Your task to perform on an android device: Open calendar and show me the second week of next month Image 0: 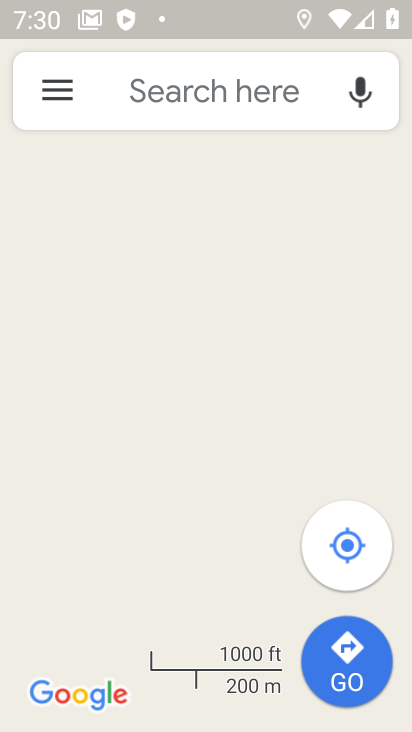
Step 0: press back button
Your task to perform on an android device: Open calendar and show me the second week of next month Image 1: 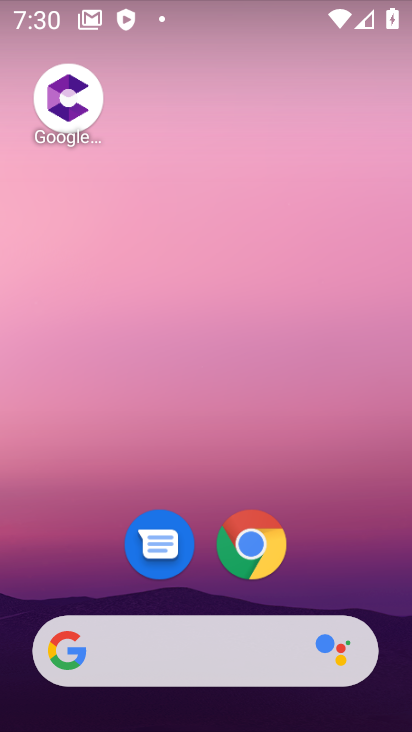
Step 1: drag from (366, 570) to (357, 4)
Your task to perform on an android device: Open calendar and show me the second week of next month Image 2: 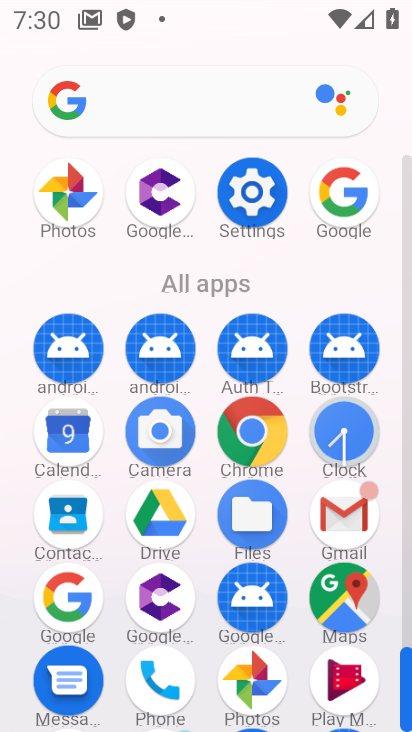
Step 2: click (69, 433)
Your task to perform on an android device: Open calendar and show me the second week of next month Image 3: 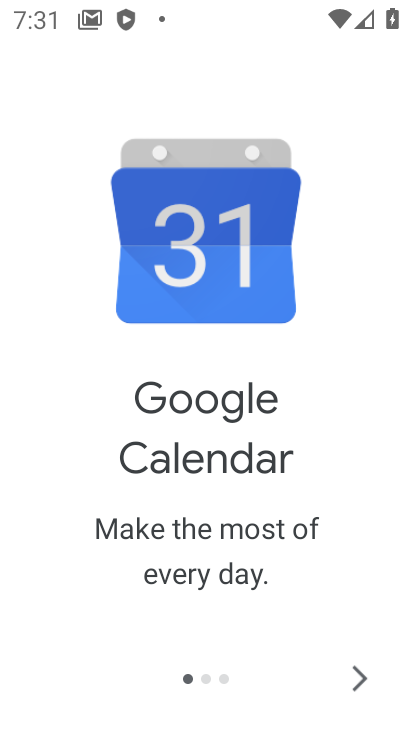
Step 3: click (361, 675)
Your task to perform on an android device: Open calendar and show me the second week of next month Image 4: 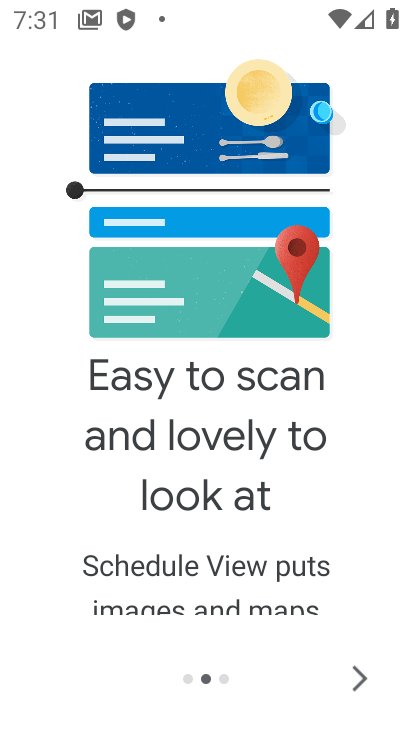
Step 4: click (361, 675)
Your task to perform on an android device: Open calendar and show me the second week of next month Image 5: 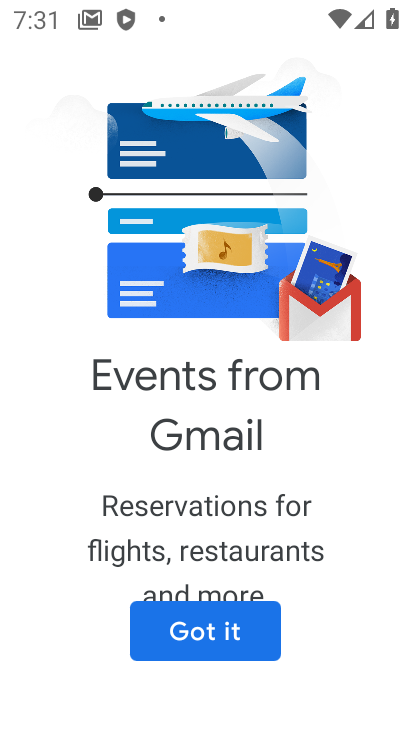
Step 5: click (208, 635)
Your task to perform on an android device: Open calendar and show me the second week of next month Image 6: 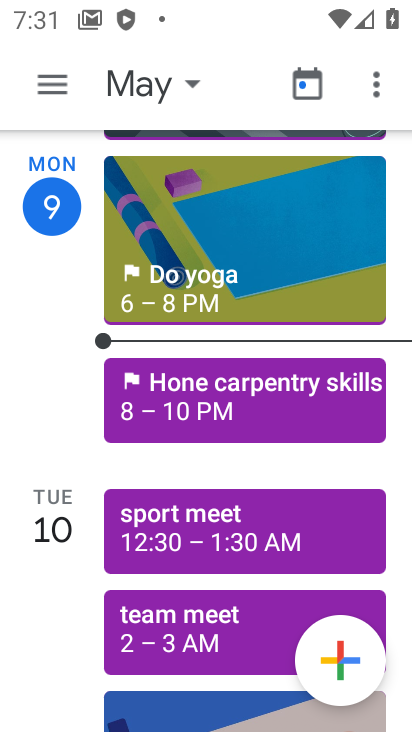
Step 6: click (189, 80)
Your task to perform on an android device: Open calendar and show me the second week of next month Image 7: 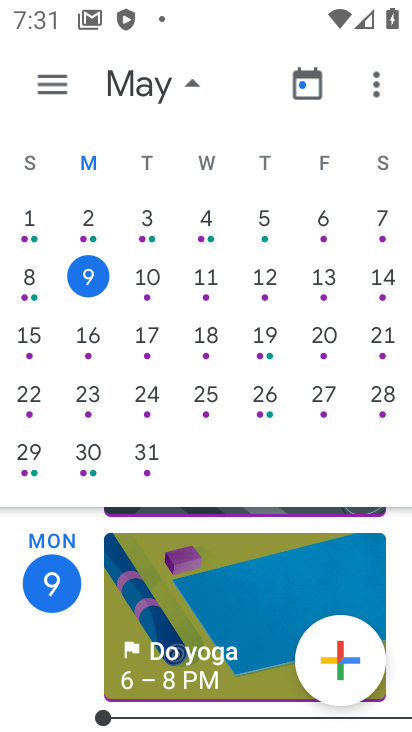
Step 7: drag from (352, 309) to (3, 337)
Your task to perform on an android device: Open calendar and show me the second week of next month Image 8: 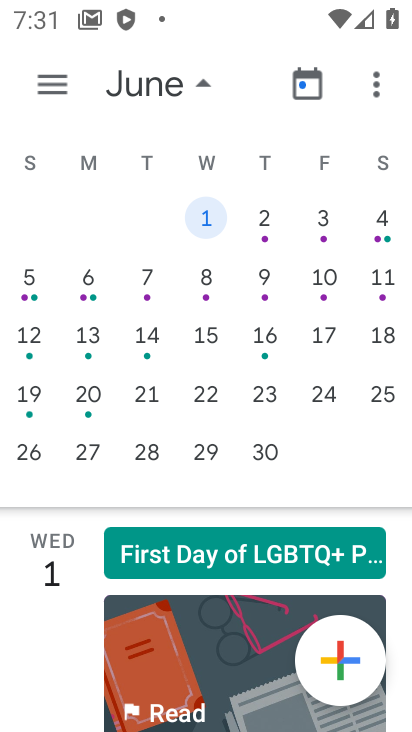
Step 8: click (83, 340)
Your task to perform on an android device: Open calendar and show me the second week of next month Image 9: 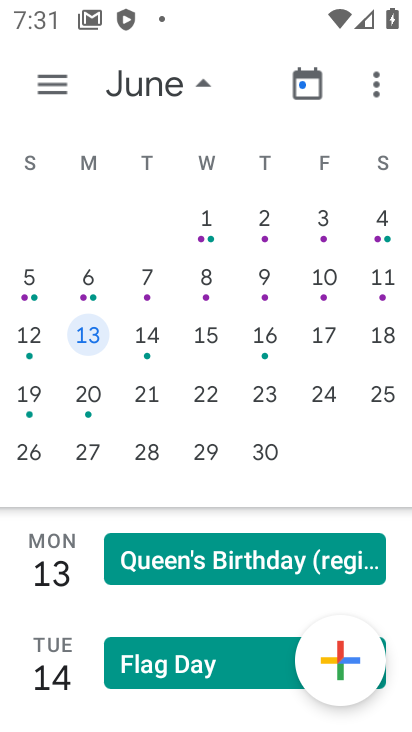
Step 9: click (44, 82)
Your task to perform on an android device: Open calendar and show me the second week of next month Image 10: 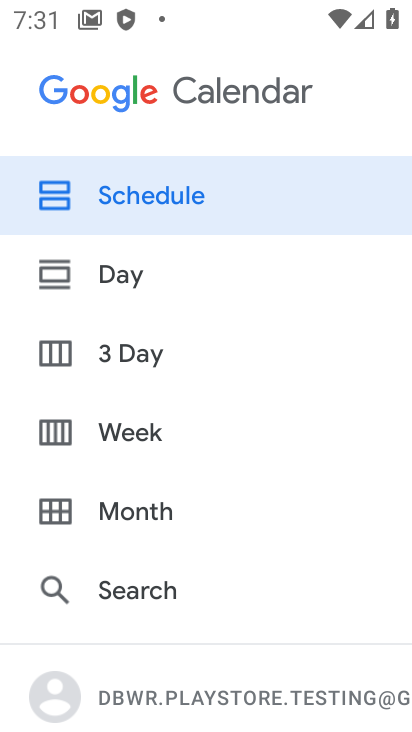
Step 10: click (138, 438)
Your task to perform on an android device: Open calendar and show me the second week of next month Image 11: 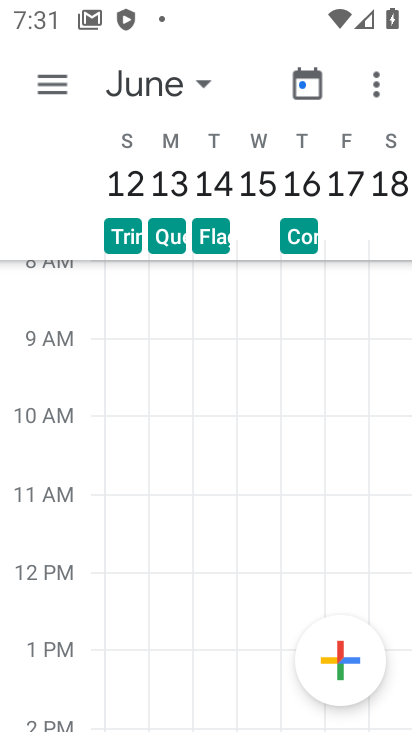
Step 11: task complete